Your task to perform on an android device: read, delete, or share a saved page in the chrome app Image 0: 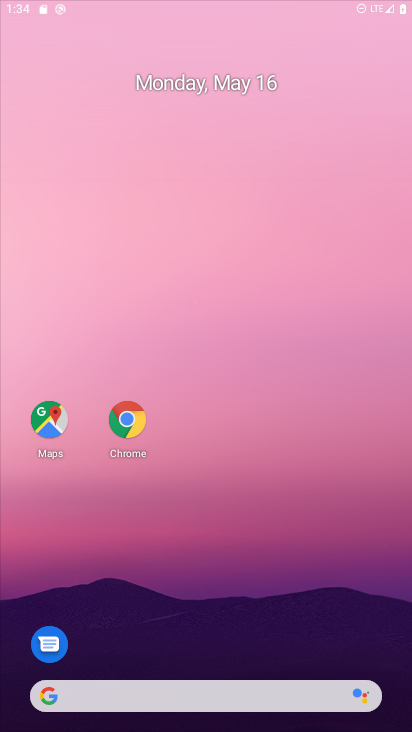
Step 0: click (409, 112)
Your task to perform on an android device: read, delete, or share a saved page in the chrome app Image 1: 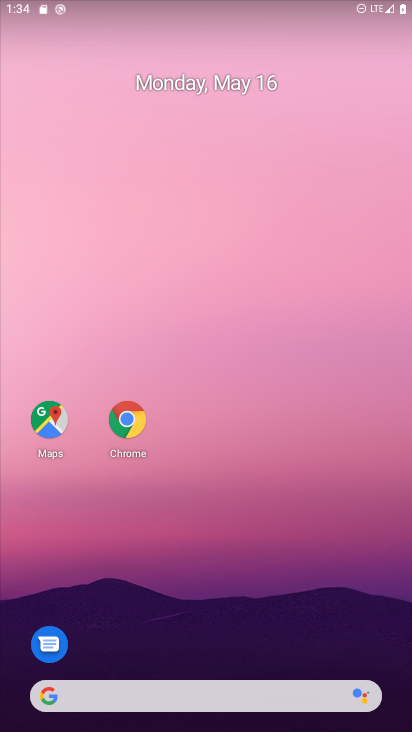
Step 1: drag from (200, 601) to (260, 116)
Your task to perform on an android device: read, delete, or share a saved page in the chrome app Image 2: 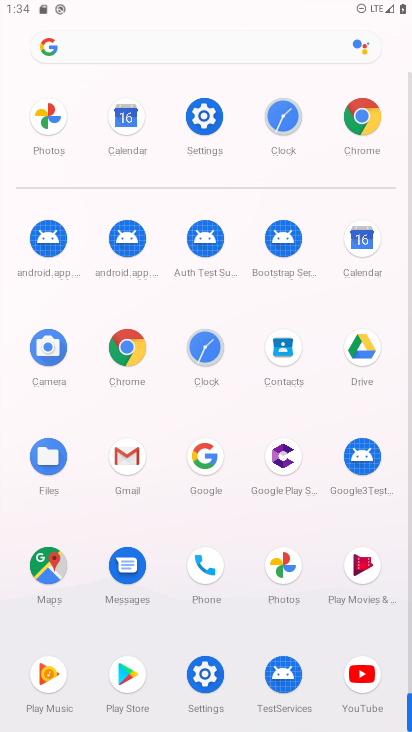
Step 2: click (356, 111)
Your task to perform on an android device: read, delete, or share a saved page in the chrome app Image 3: 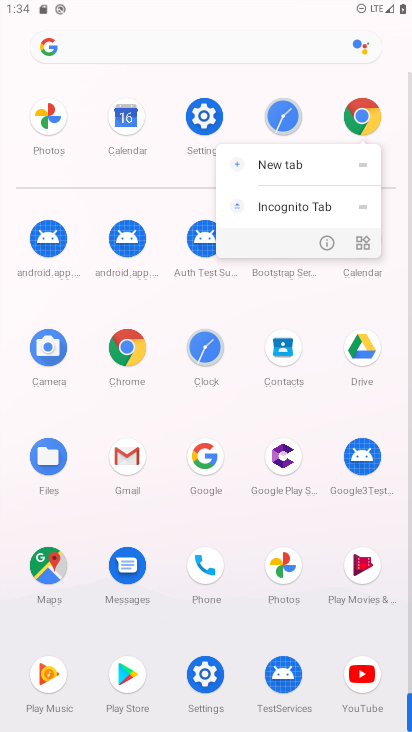
Step 3: click (129, 342)
Your task to perform on an android device: read, delete, or share a saved page in the chrome app Image 4: 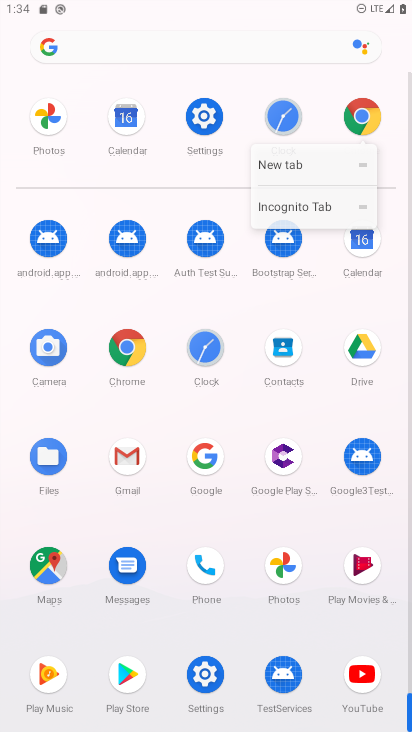
Step 4: click (129, 342)
Your task to perform on an android device: read, delete, or share a saved page in the chrome app Image 5: 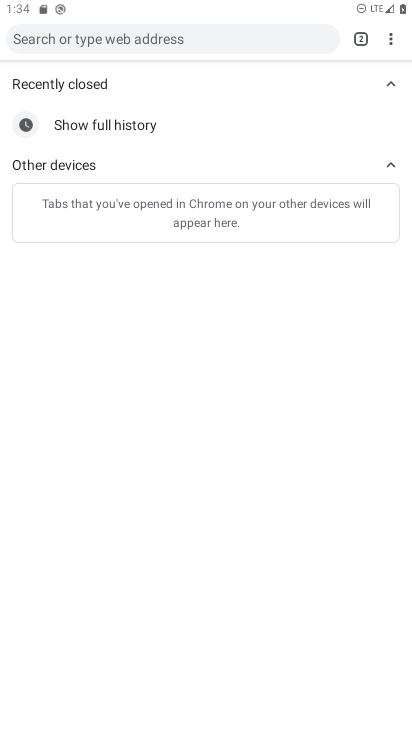
Step 5: click (220, 386)
Your task to perform on an android device: read, delete, or share a saved page in the chrome app Image 6: 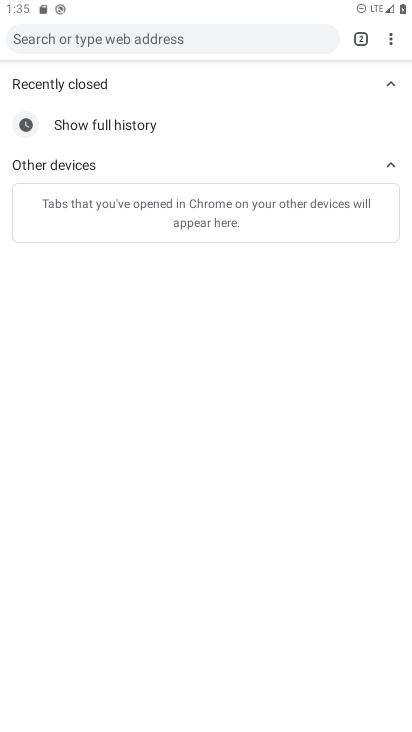
Step 6: click (390, 39)
Your task to perform on an android device: read, delete, or share a saved page in the chrome app Image 7: 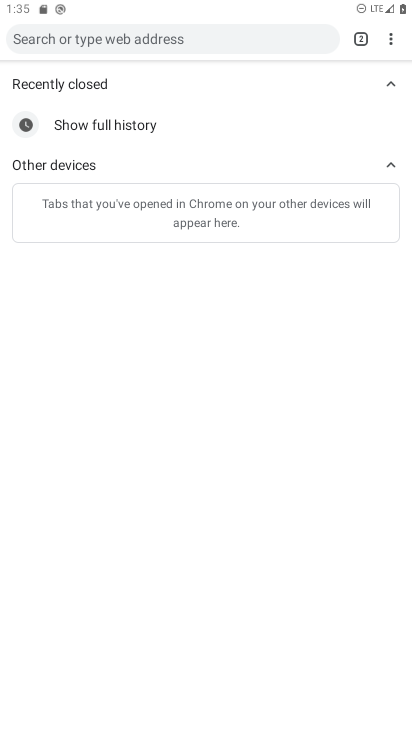
Step 7: click (391, 35)
Your task to perform on an android device: read, delete, or share a saved page in the chrome app Image 8: 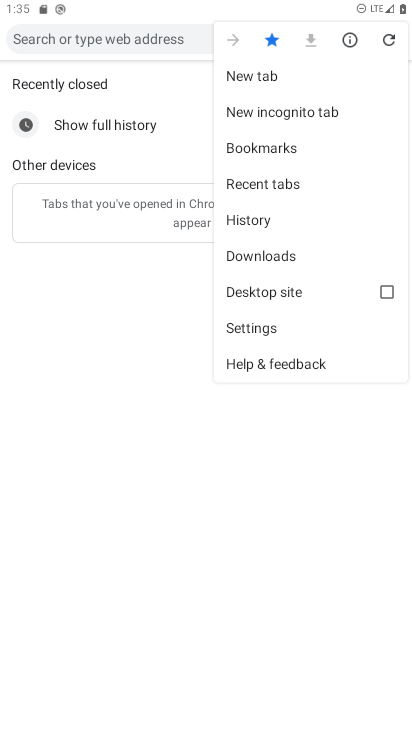
Step 8: click (253, 158)
Your task to perform on an android device: read, delete, or share a saved page in the chrome app Image 9: 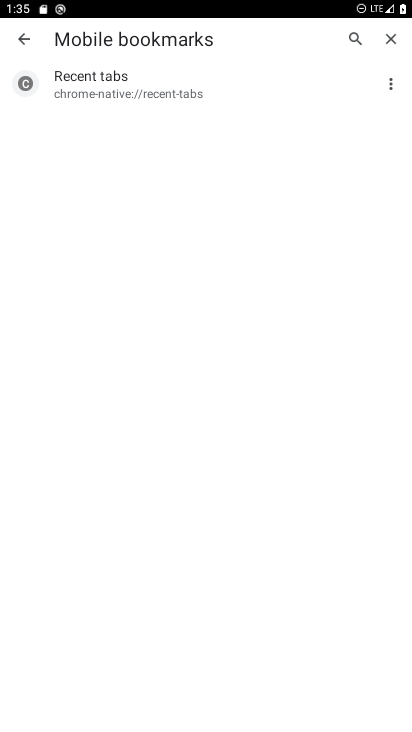
Step 9: drag from (83, 661) to (150, 226)
Your task to perform on an android device: read, delete, or share a saved page in the chrome app Image 10: 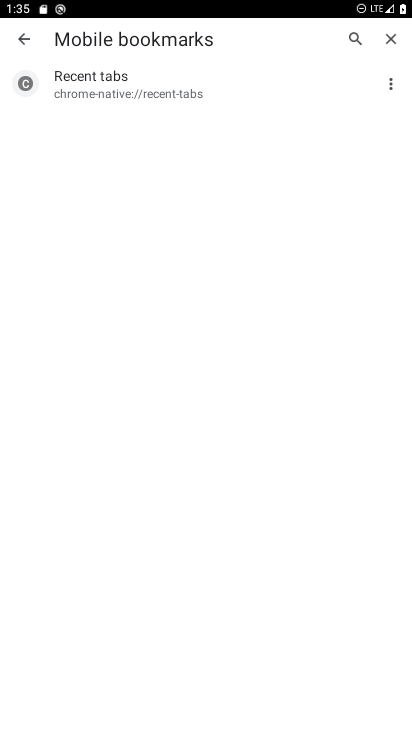
Step 10: click (390, 94)
Your task to perform on an android device: read, delete, or share a saved page in the chrome app Image 11: 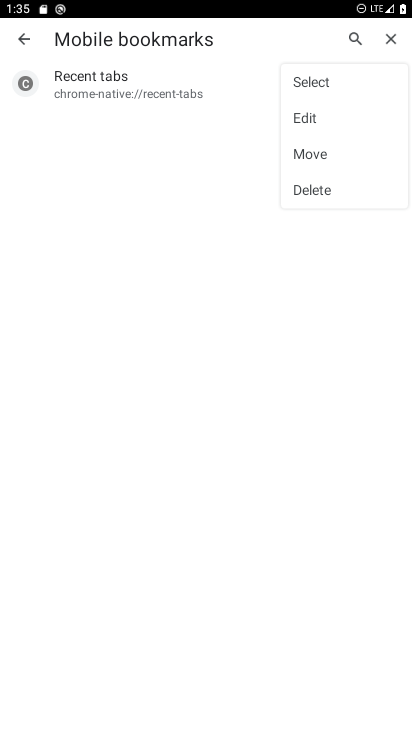
Step 11: click (312, 154)
Your task to perform on an android device: read, delete, or share a saved page in the chrome app Image 12: 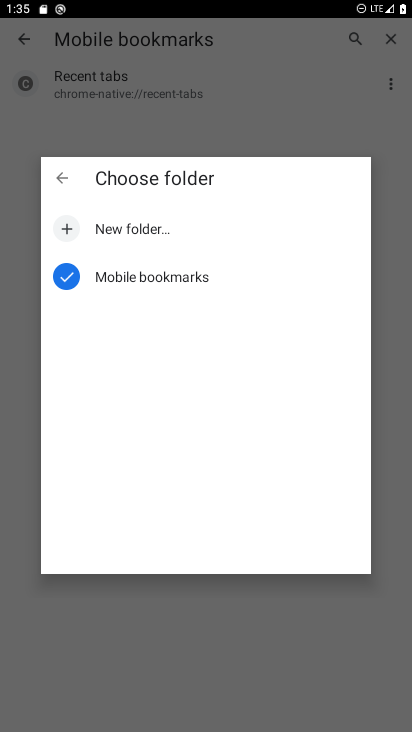
Step 12: click (114, 286)
Your task to perform on an android device: read, delete, or share a saved page in the chrome app Image 13: 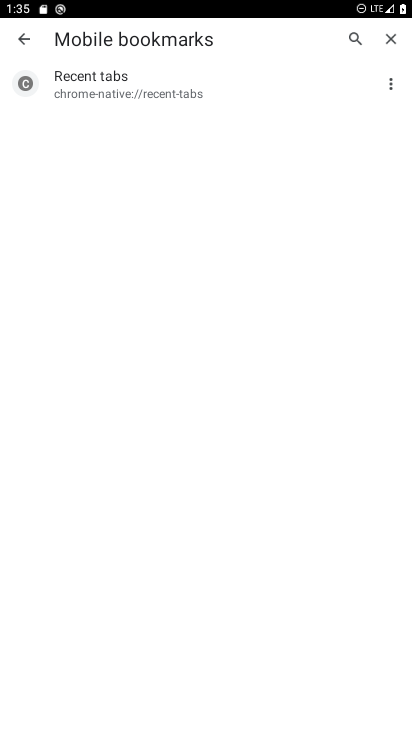
Step 13: task complete